Your task to perform on an android device: Open network settings Image 0: 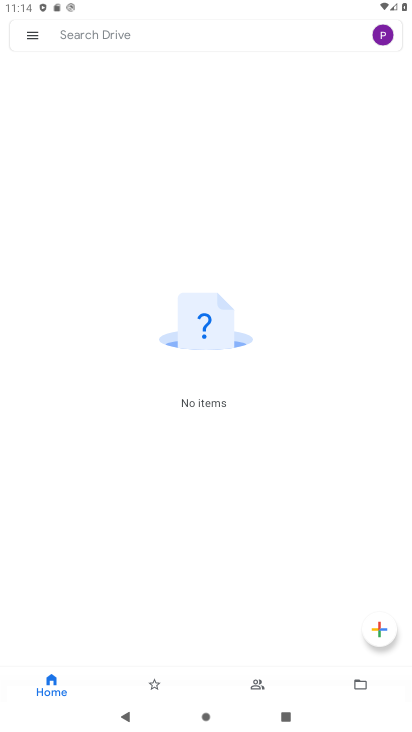
Step 0: press home button
Your task to perform on an android device: Open network settings Image 1: 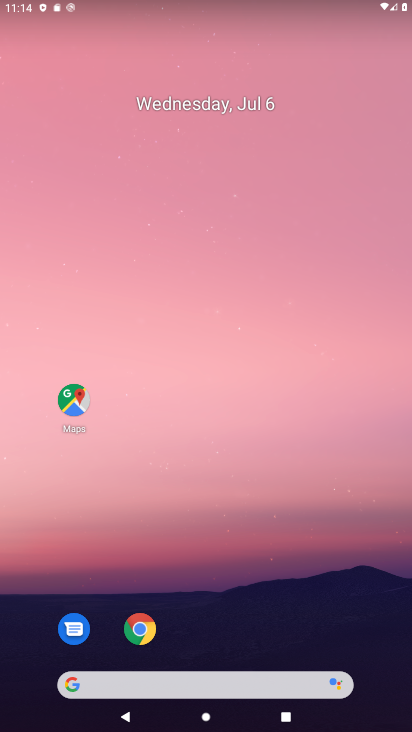
Step 1: drag from (347, 576) to (364, 101)
Your task to perform on an android device: Open network settings Image 2: 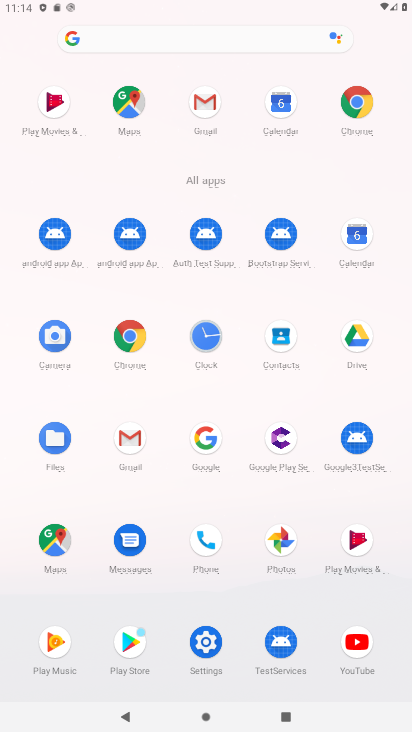
Step 2: click (207, 644)
Your task to perform on an android device: Open network settings Image 3: 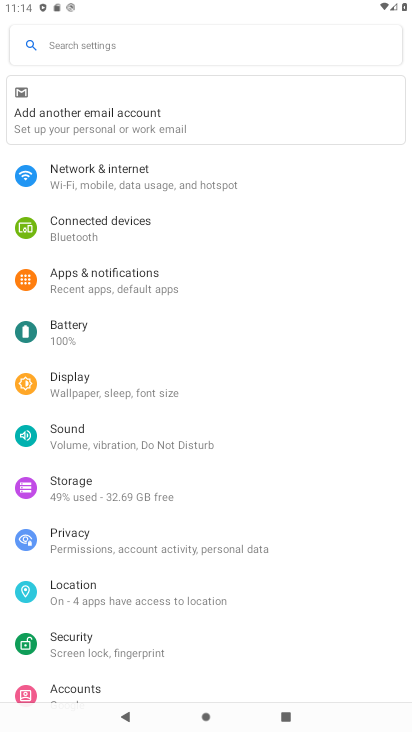
Step 3: click (138, 187)
Your task to perform on an android device: Open network settings Image 4: 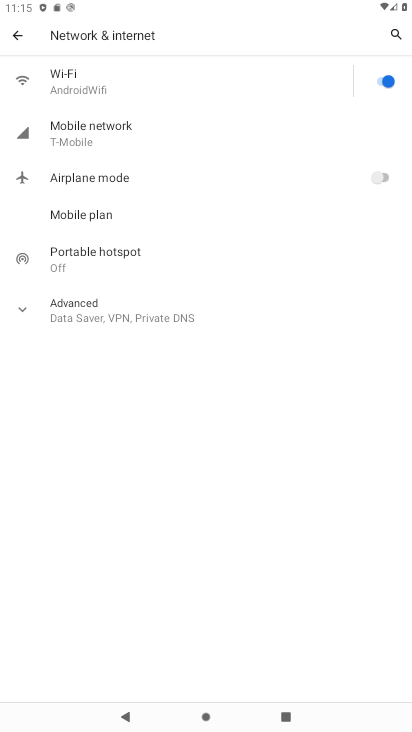
Step 4: task complete